Your task to perform on an android device: Go to Wikipedia Image 0: 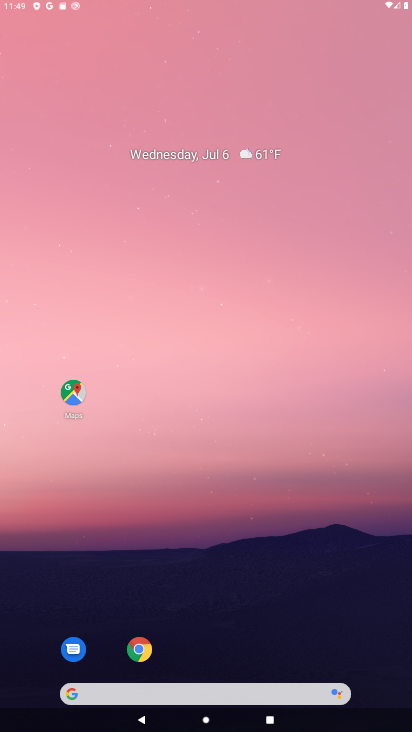
Step 0: click (243, 144)
Your task to perform on an android device: Go to Wikipedia Image 1: 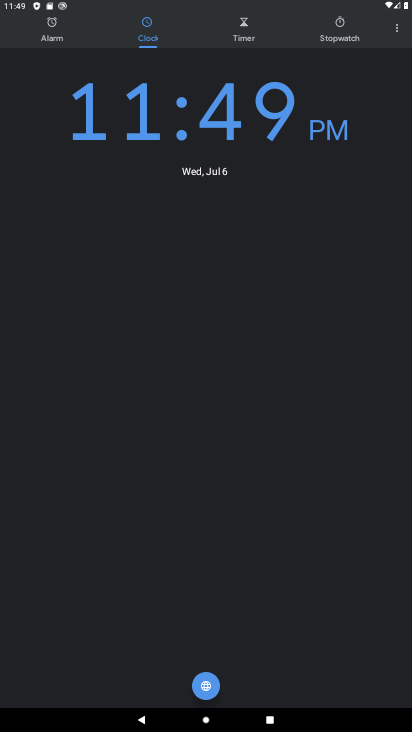
Step 1: press home button
Your task to perform on an android device: Go to Wikipedia Image 2: 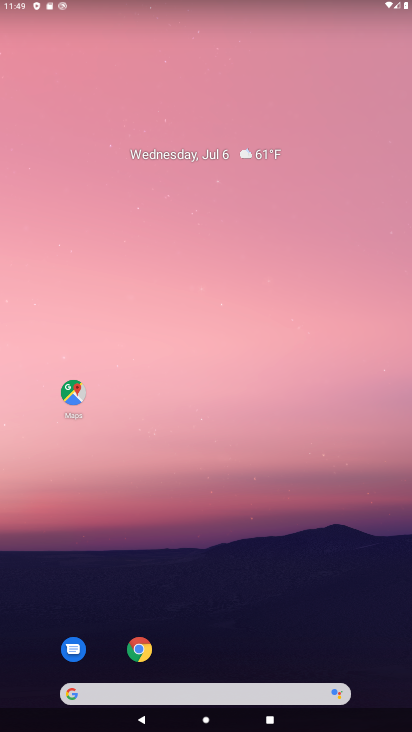
Step 2: drag from (190, 673) to (256, 23)
Your task to perform on an android device: Go to Wikipedia Image 3: 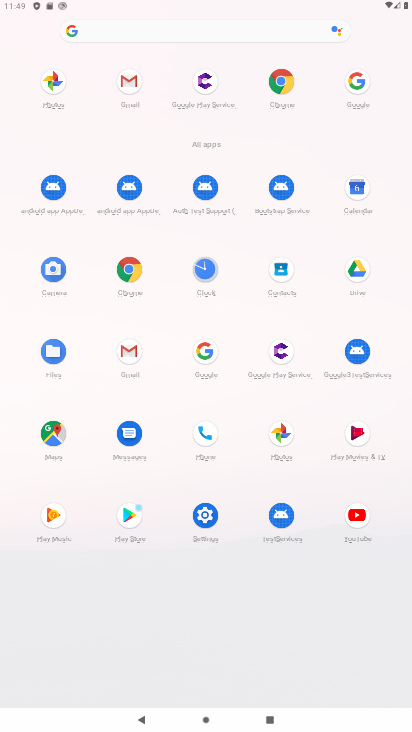
Step 3: click (124, 269)
Your task to perform on an android device: Go to Wikipedia Image 4: 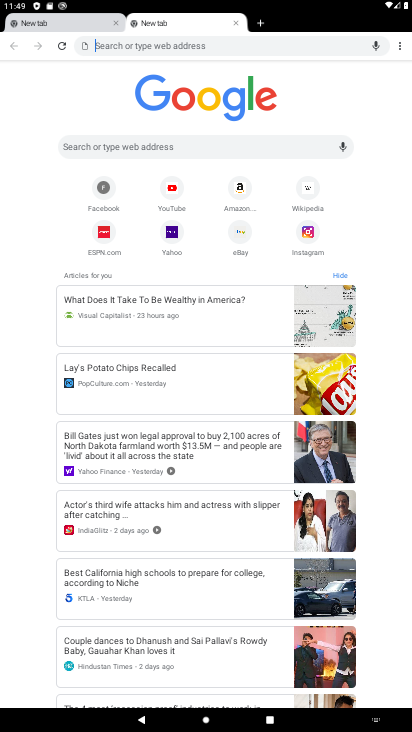
Step 4: click (301, 187)
Your task to perform on an android device: Go to Wikipedia Image 5: 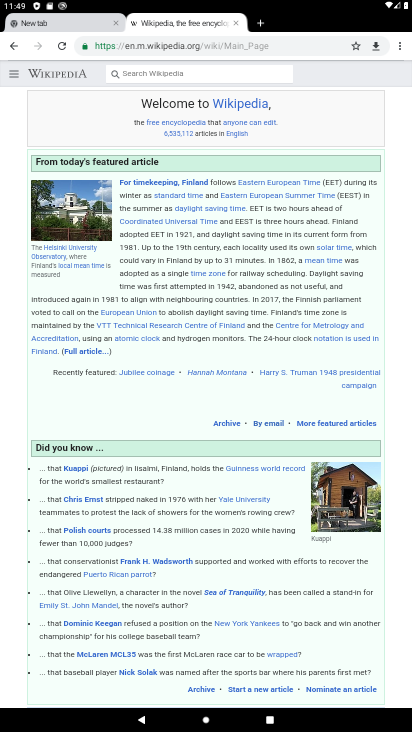
Step 5: task complete